Your task to perform on an android device: empty trash in google photos Image 0: 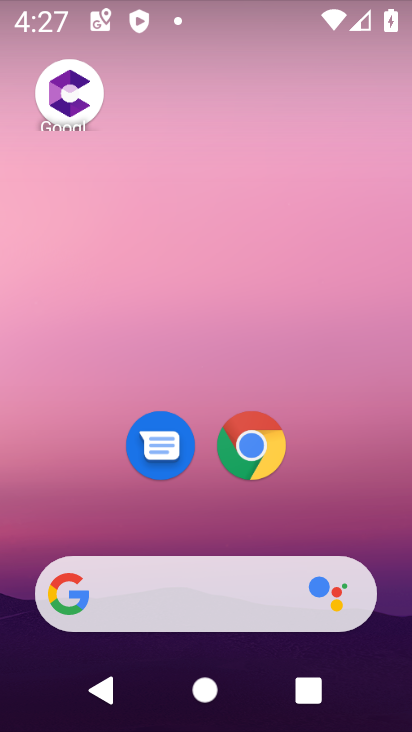
Step 0: drag from (396, 559) to (279, 227)
Your task to perform on an android device: empty trash in google photos Image 1: 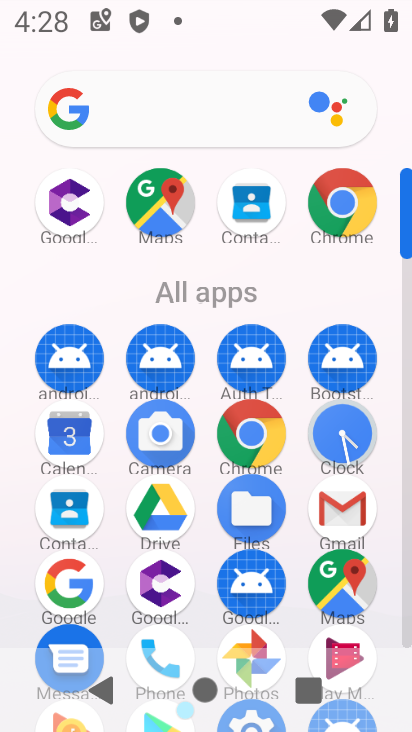
Step 1: click (264, 638)
Your task to perform on an android device: empty trash in google photos Image 2: 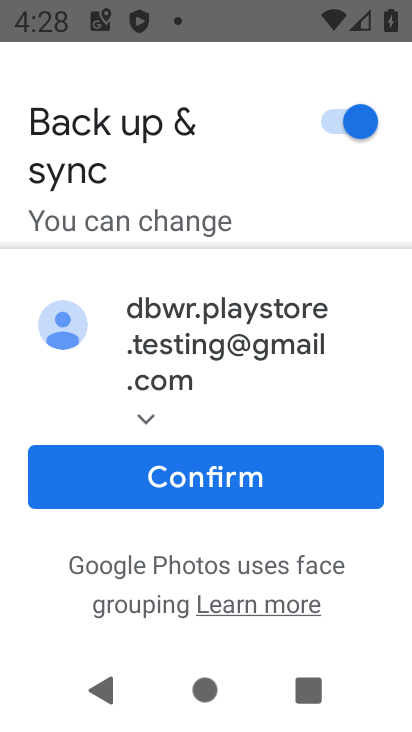
Step 2: click (177, 487)
Your task to perform on an android device: empty trash in google photos Image 3: 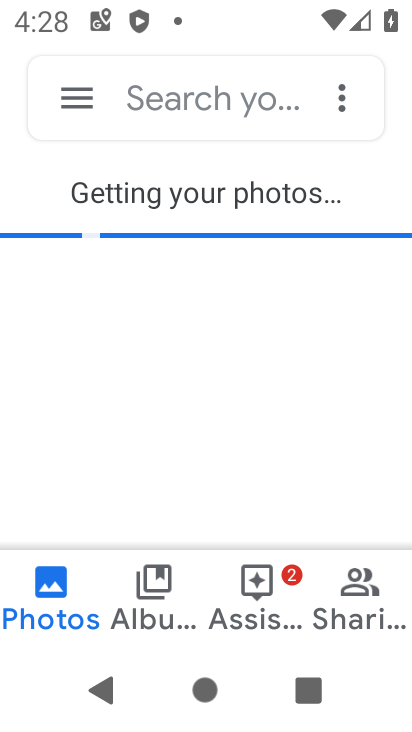
Step 3: click (82, 82)
Your task to perform on an android device: empty trash in google photos Image 4: 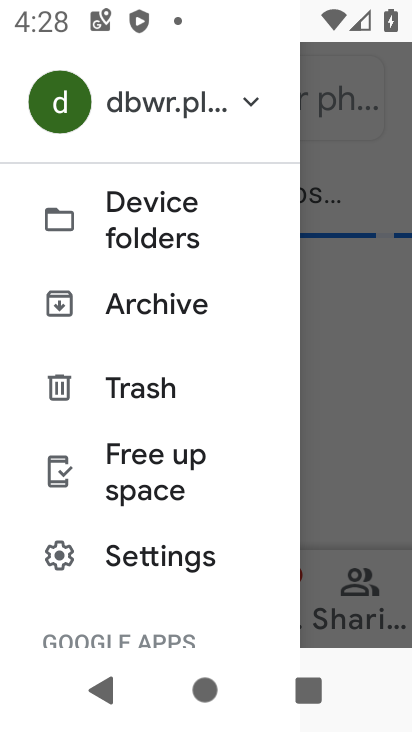
Step 4: click (172, 388)
Your task to perform on an android device: empty trash in google photos Image 5: 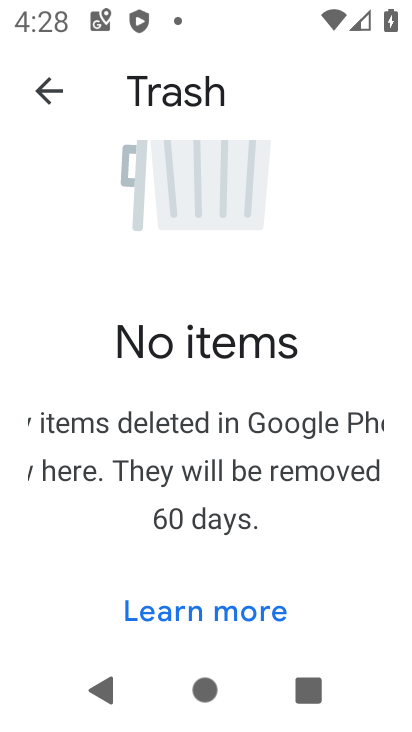
Step 5: task complete